Your task to perform on an android device: Turn on the flashlight Image 0: 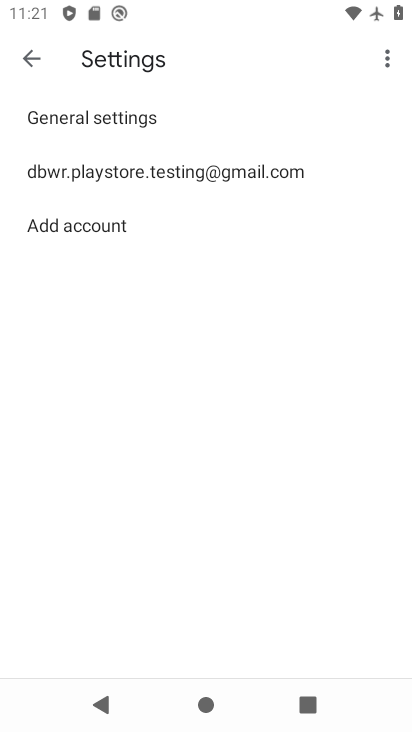
Step 0: press home button
Your task to perform on an android device: Turn on the flashlight Image 1: 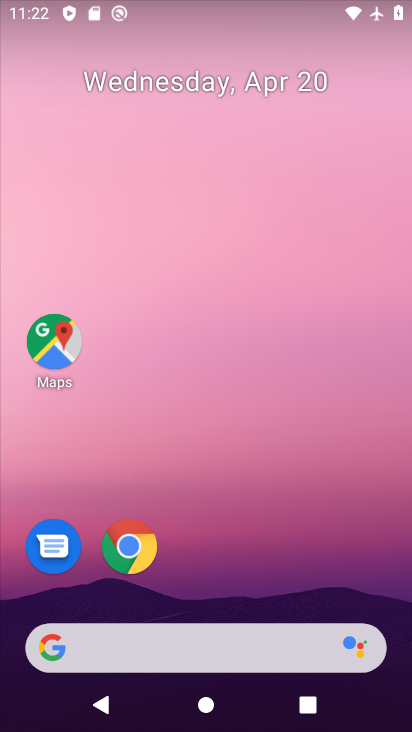
Step 1: task complete